Your task to perform on an android device: What is the news today? Image 0: 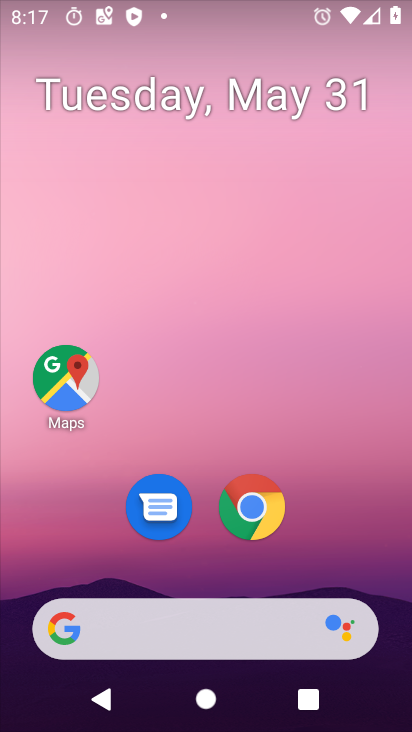
Step 0: click (128, 619)
Your task to perform on an android device: What is the news today? Image 1: 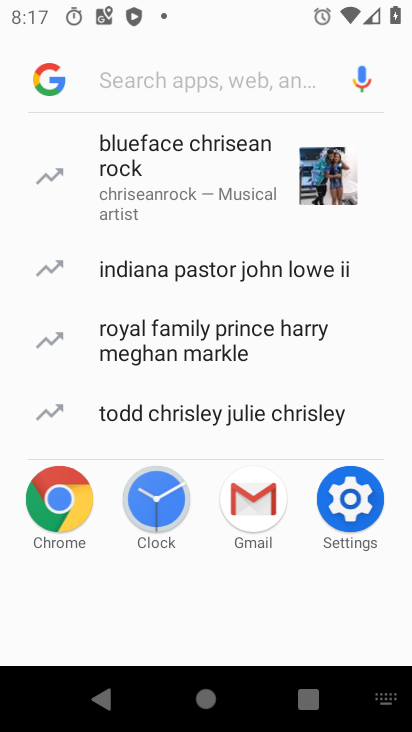
Step 1: type "news today"
Your task to perform on an android device: What is the news today? Image 2: 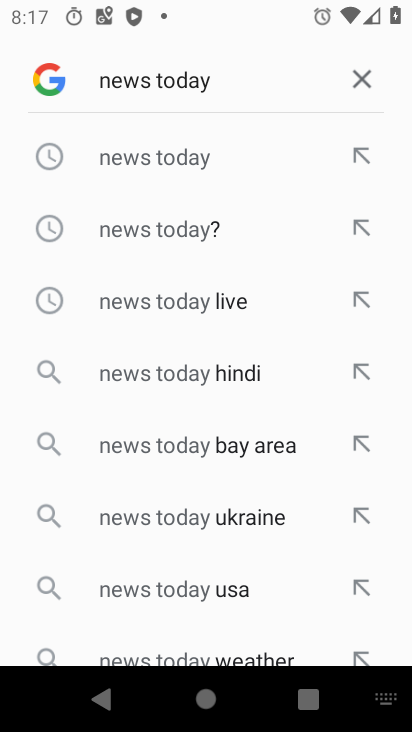
Step 2: click (173, 167)
Your task to perform on an android device: What is the news today? Image 3: 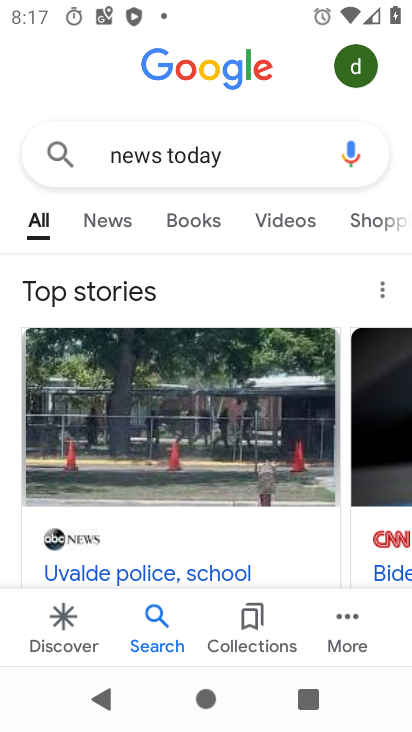
Step 3: drag from (179, 506) to (171, 213)
Your task to perform on an android device: What is the news today? Image 4: 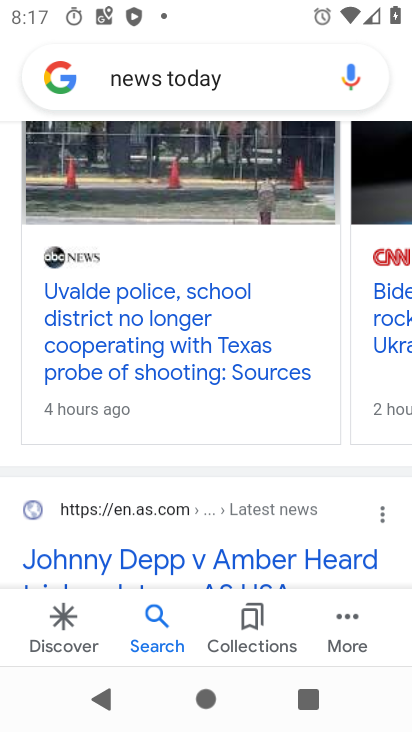
Step 4: click (142, 337)
Your task to perform on an android device: What is the news today? Image 5: 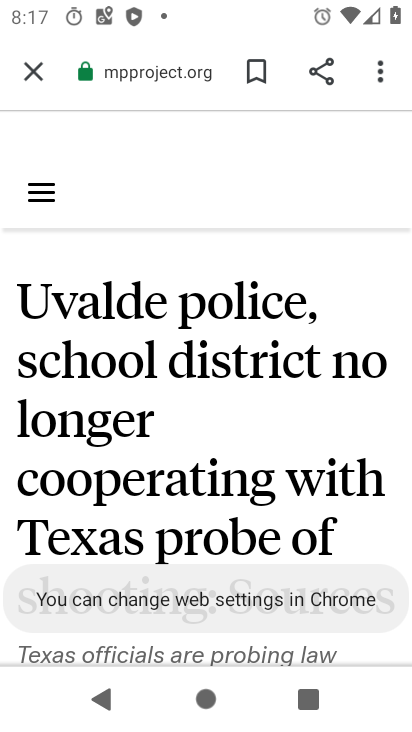
Step 5: task complete